Your task to perform on an android device: Turn off the flashlight Image 0: 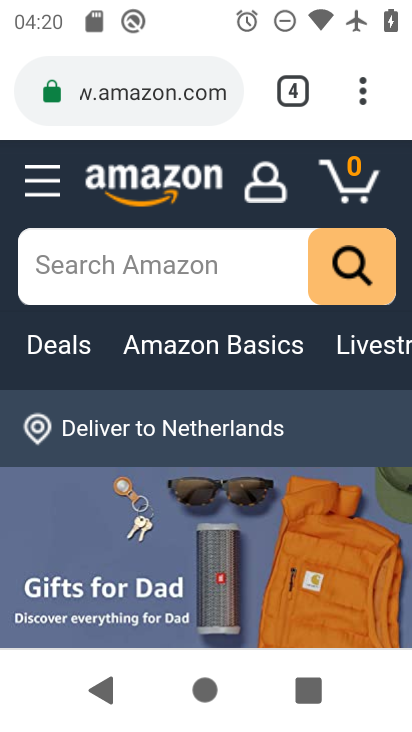
Step 0: press home button
Your task to perform on an android device: Turn off the flashlight Image 1: 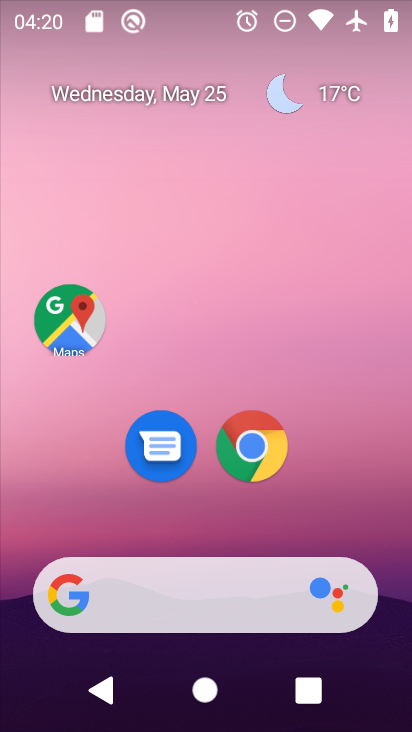
Step 1: task complete